Your task to perform on an android device: Find coffee shops on Maps Image 0: 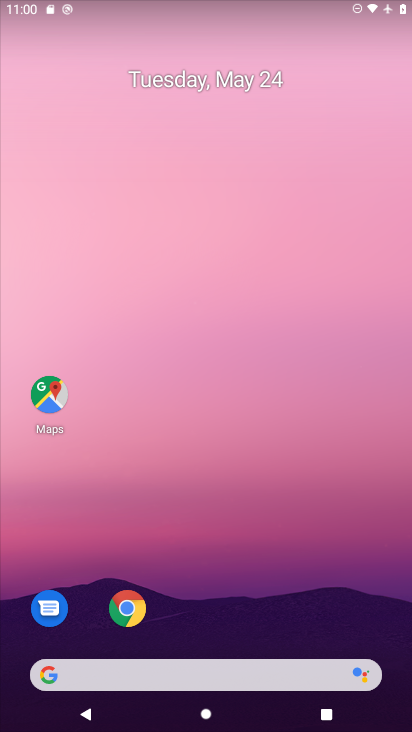
Step 0: click (53, 393)
Your task to perform on an android device: Find coffee shops on Maps Image 1: 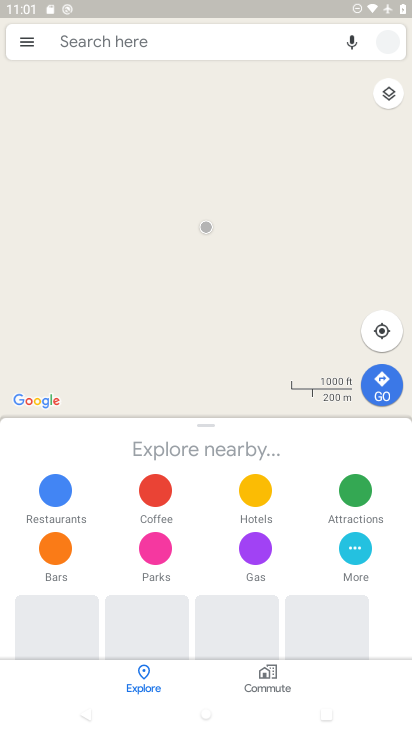
Step 1: click (123, 36)
Your task to perform on an android device: Find coffee shops on Maps Image 2: 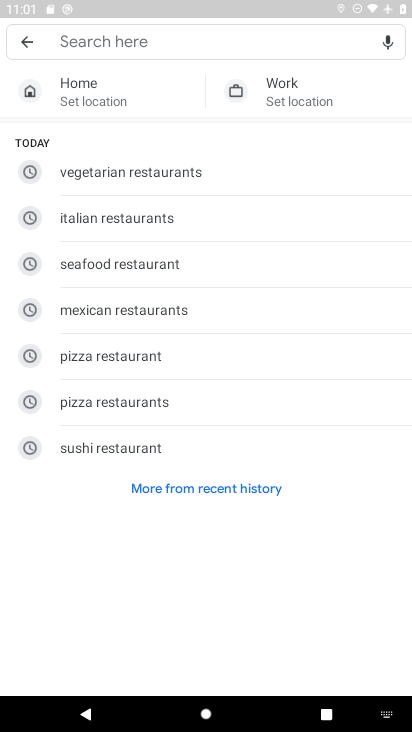
Step 2: type "coffee shop"
Your task to perform on an android device: Find coffee shops on Maps Image 3: 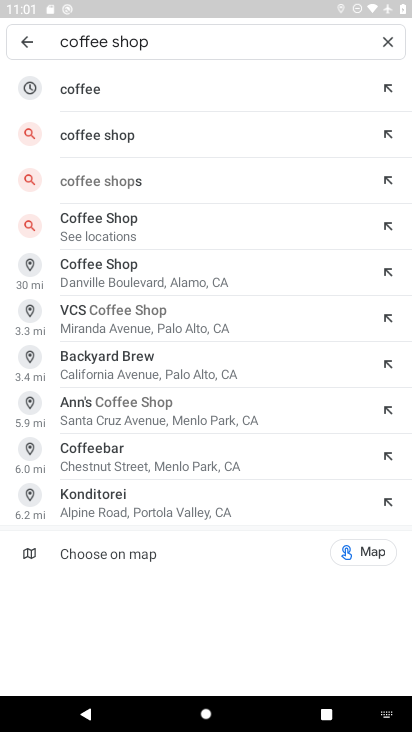
Step 3: click (111, 138)
Your task to perform on an android device: Find coffee shops on Maps Image 4: 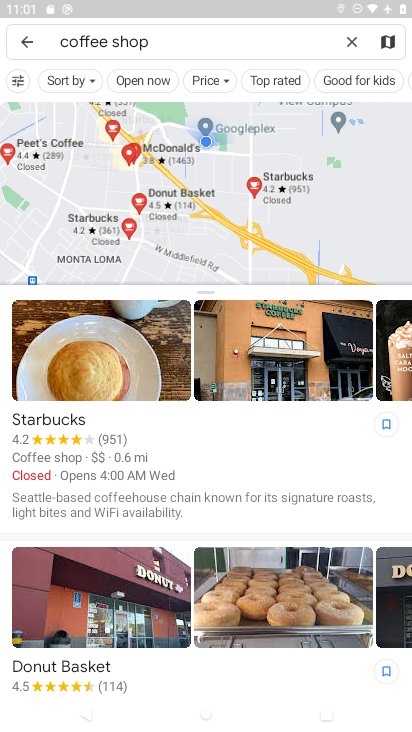
Step 4: task complete